Your task to perform on an android device: move a message to another label in the gmail app Image 0: 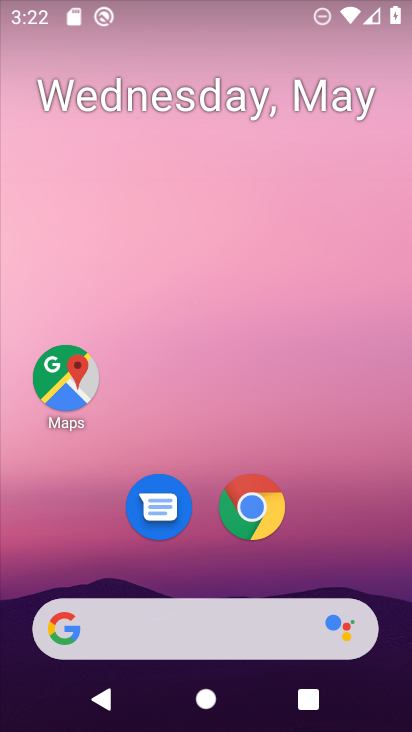
Step 0: drag from (223, 572) to (235, 14)
Your task to perform on an android device: move a message to another label in the gmail app Image 1: 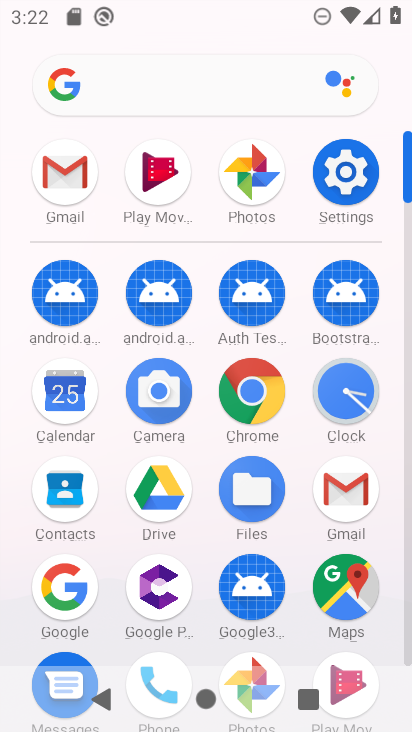
Step 1: click (335, 483)
Your task to perform on an android device: move a message to another label in the gmail app Image 2: 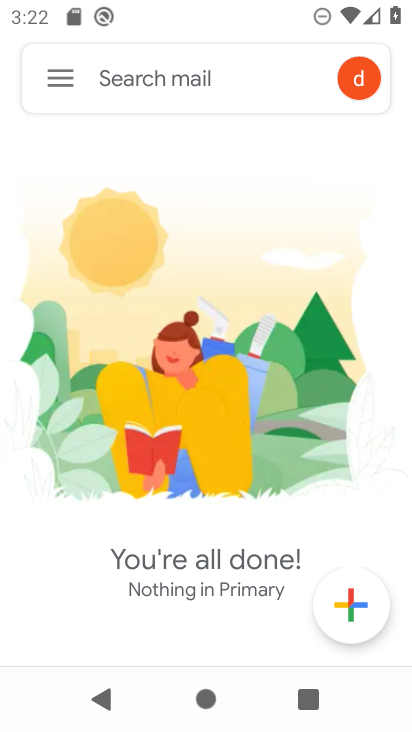
Step 2: click (57, 81)
Your task to perform on an android device: move a message to another label in the gmail app Image 3: 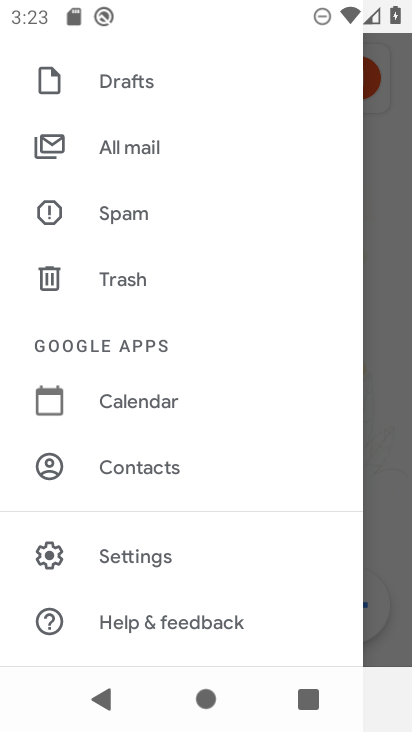
Step 3: click (142, 148)
Your task to perform on an android device: move a message to another label in the gmail app Image 4: 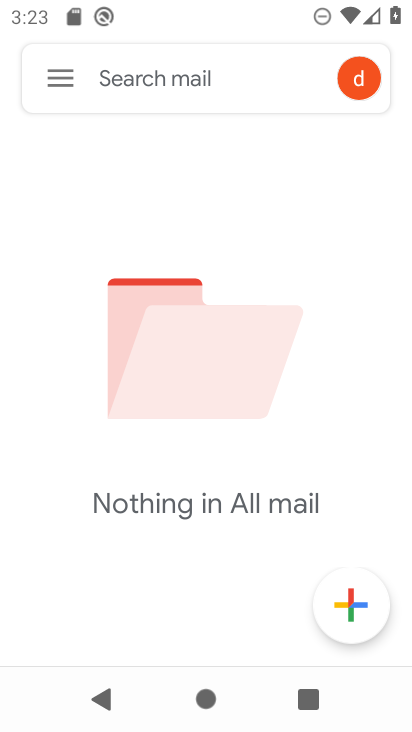
Step 4: task complete